Your task to perform on an android device: Go to Maps Image 0: 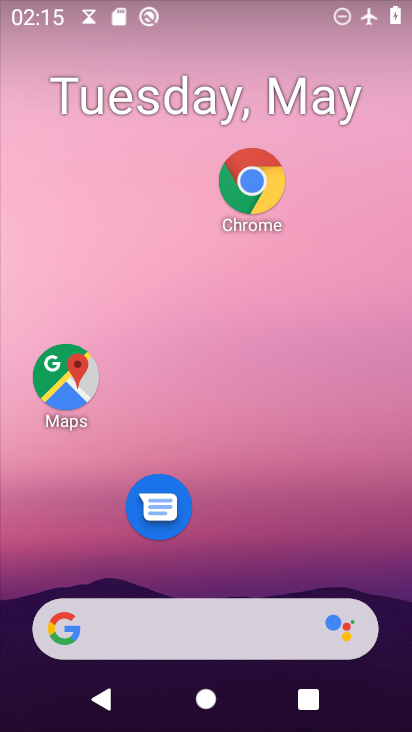
Step 0: click (65, 374)
Your task to perform on an android device: Go to Maps Image 1: 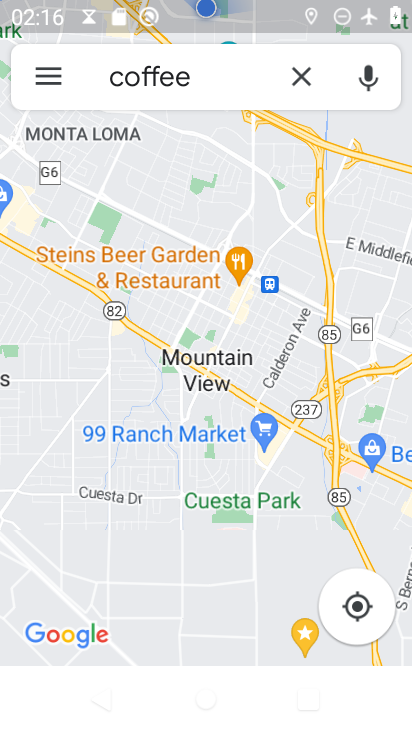
Step 1: task complete